Your task to perform on an android device: Search for a new phone on Amazon. Image 0: 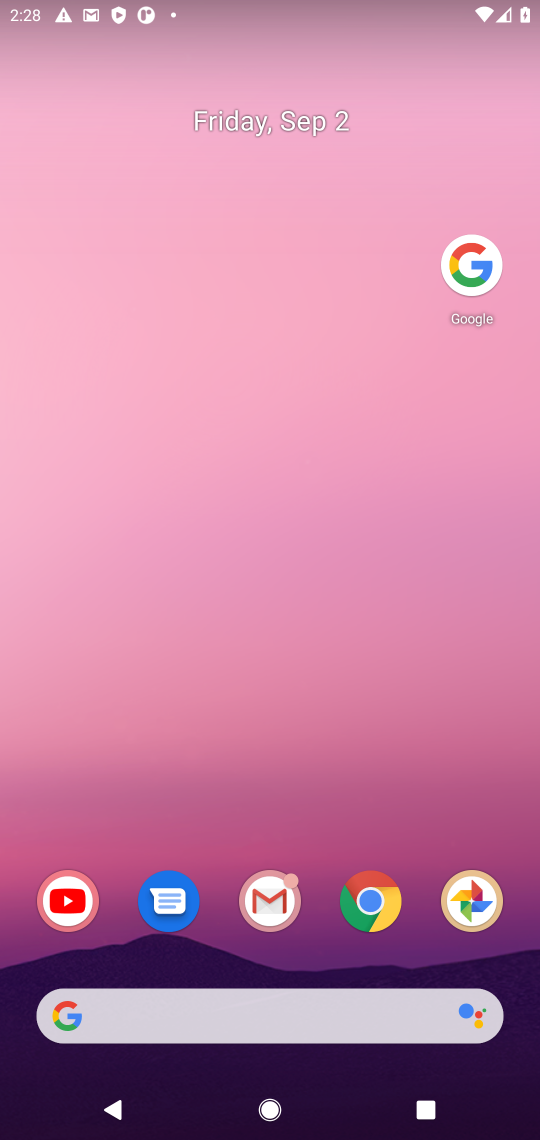
Step 0: click (246, 278)
Your task to perform on an android device: Search for a new phone on Amazon. Image 1: 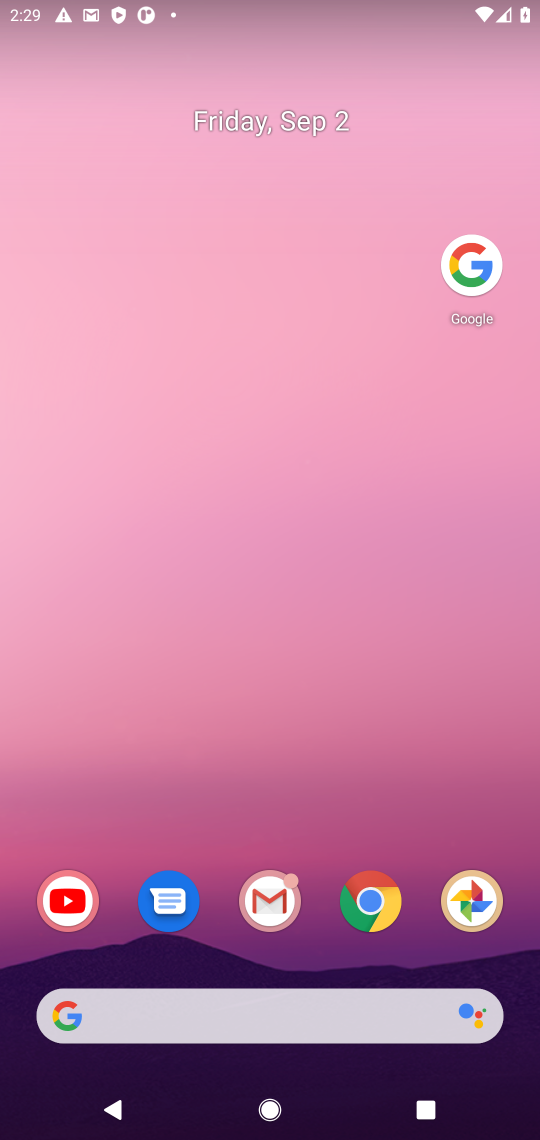
Step 1: click (469, 242)
Your task to perform on an android device: Search for a new phone on Amazon. Image 2: 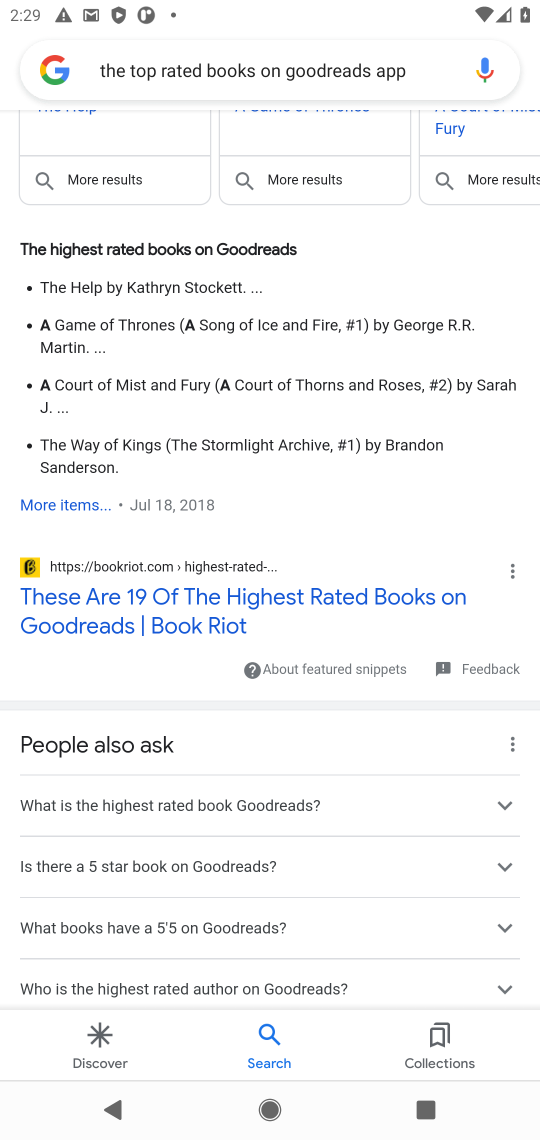
Step 2: click (429, 68)
Your task to perform on an android device: Search for a new phone on Amazon. Image 3: 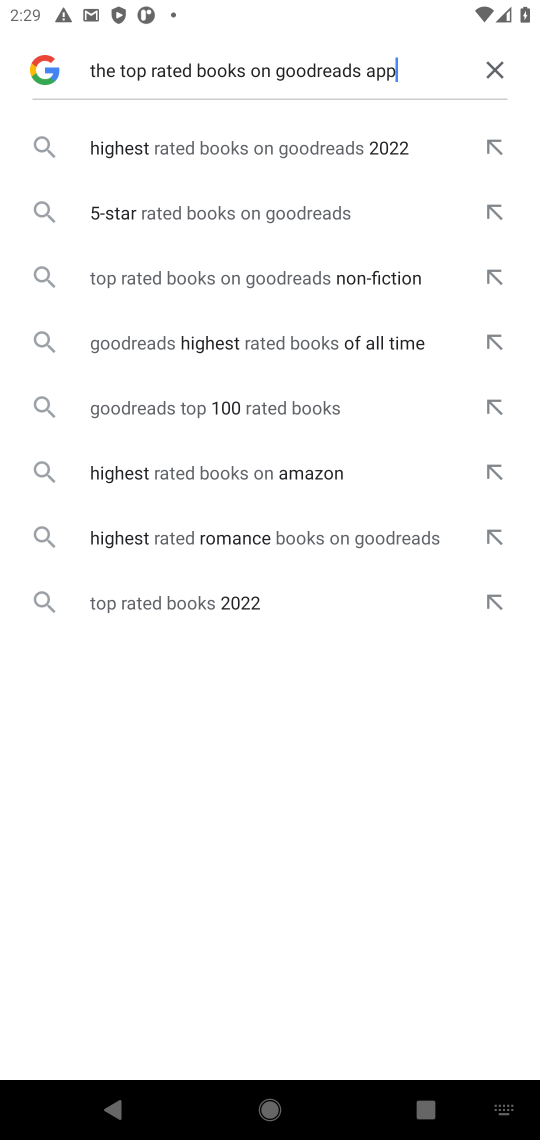
Step 3: click (510, 71)
Your task to perform on an android device: Search for a new phone on Amazon. Image 4: 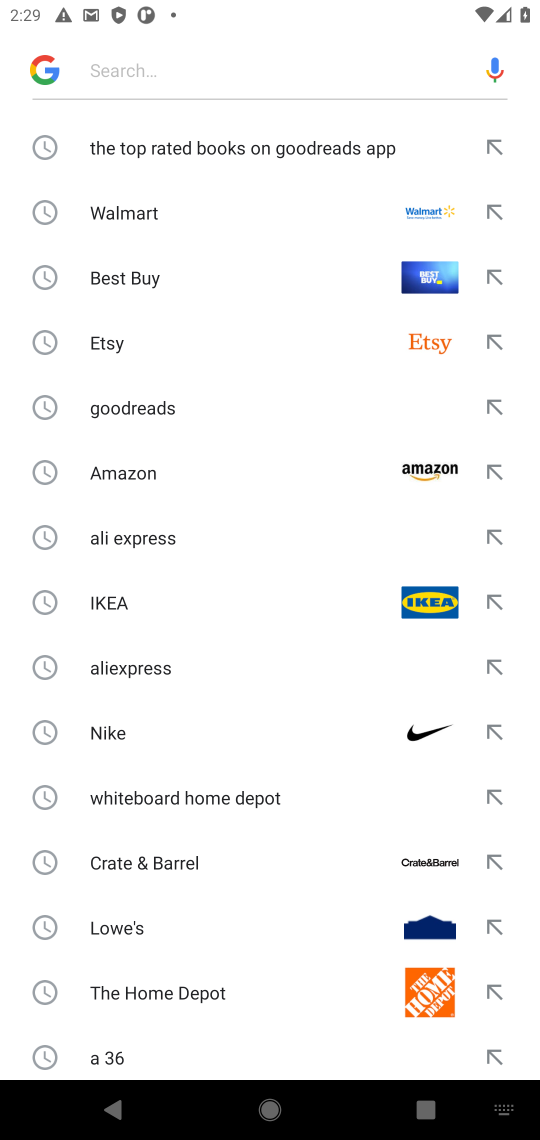
Step 4: click (228, 65)
Your task to perform on an android device: Search for a new phone on Amazon. Image 5: 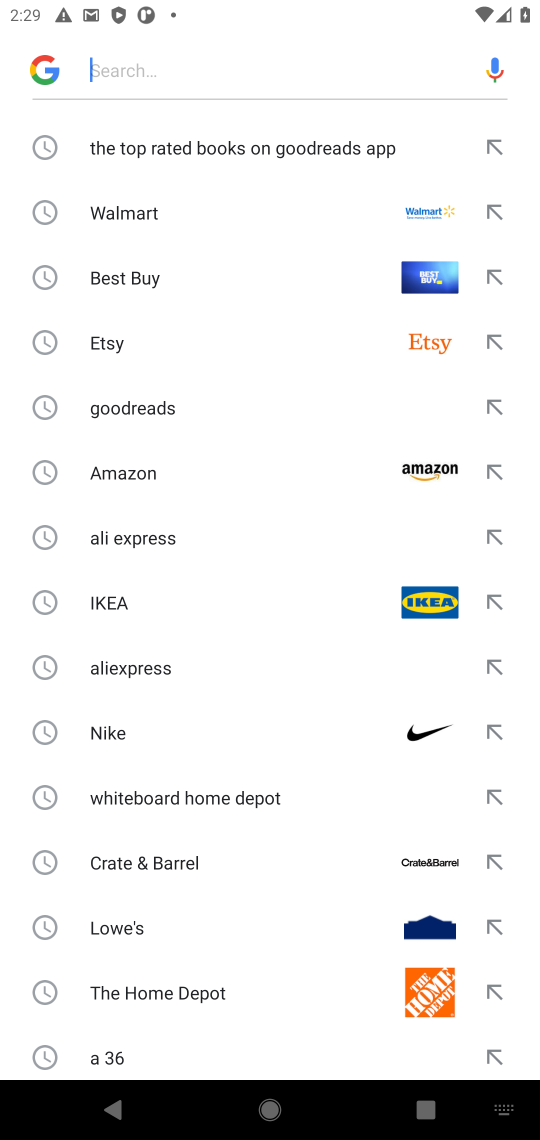
Step 5: type "new phone on Amazon "
Your task to perform on an android device: Search for a new phone on Amazon. Image 6: 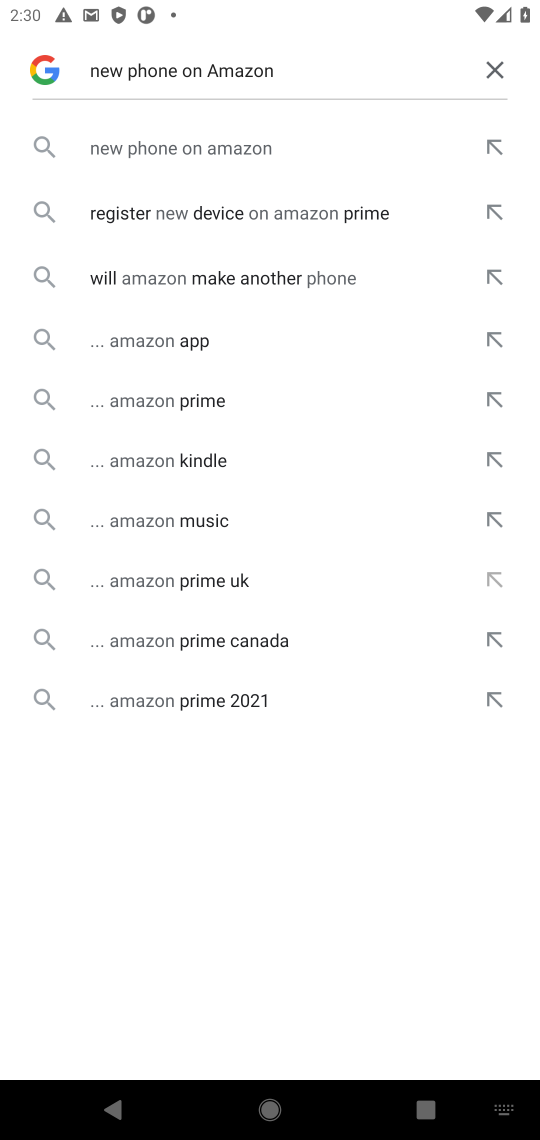
Step 6: click (184, 154)
Your task to perform on an android device: Search for a new phone on Amazon. Image 7: 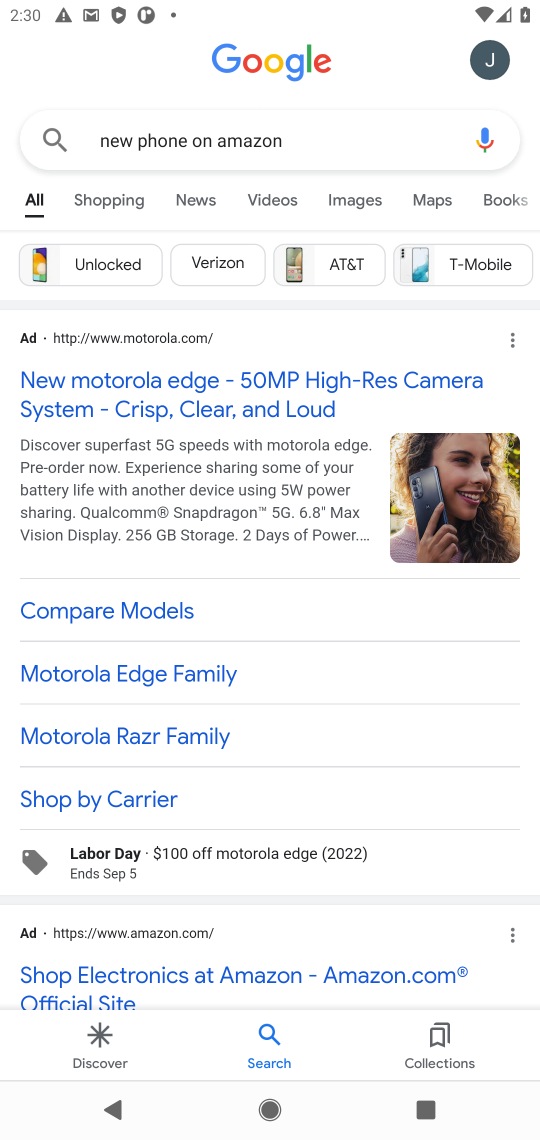
Step 7: click (198, 410)
Your task to perform on an android device: Search for a new phone on Amazon. Image 8: 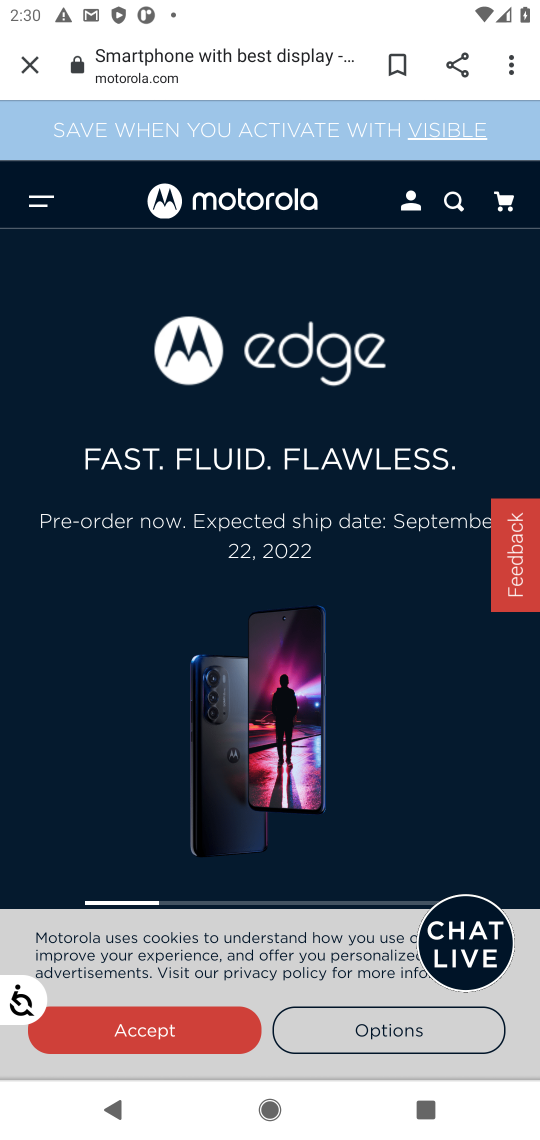
Step 8: task complete